Your task to perform on an android device: Go to battery settings Image 0: 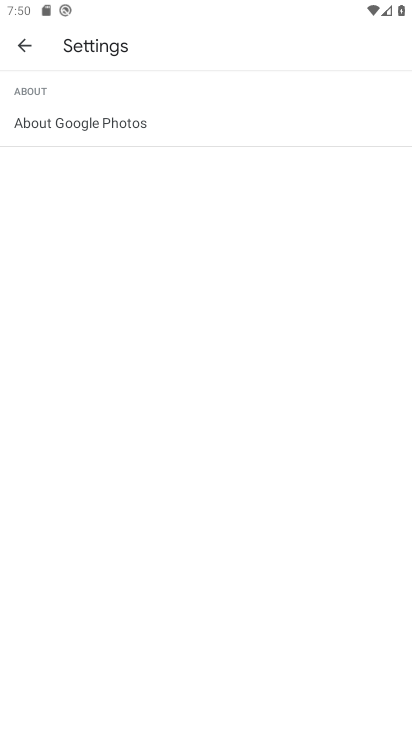
Step 0: press home button
Your task to perform on an android device: Go to battery settings Image 1: 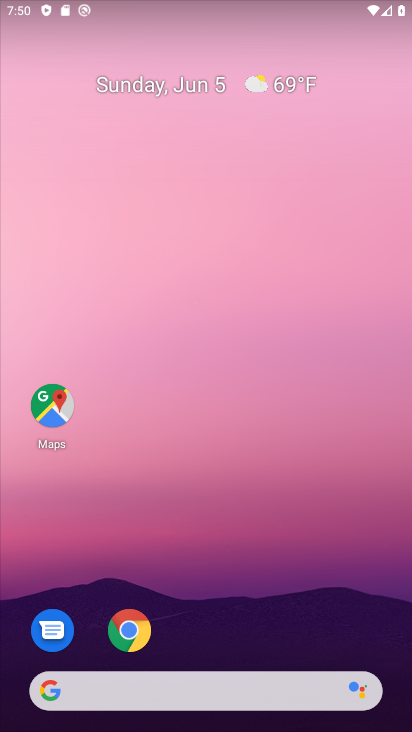
Step 1: drag from (208, 573) to (171, 188)
Your task to perform on an android device: Go to battery settings Image 2: 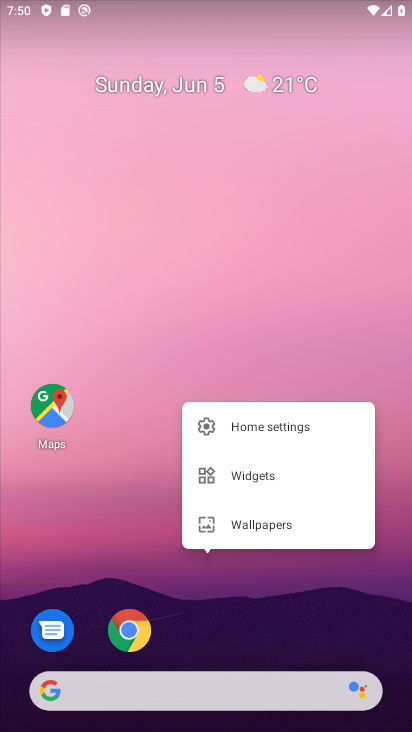
Step 2: drag from (216, 654) to (167, 153)
Your task to perform on an android device: Go to battery settings Image 3: 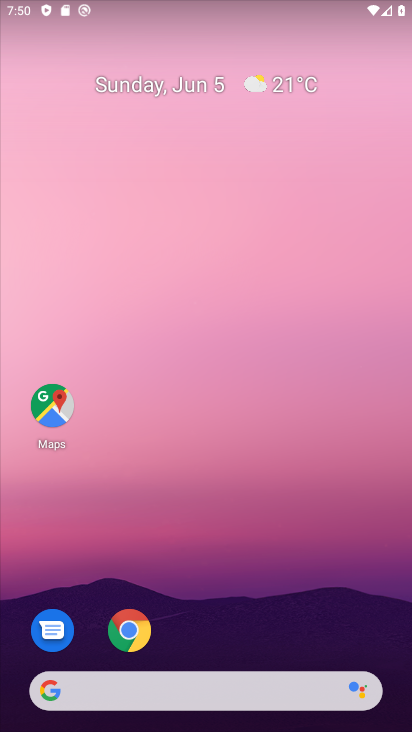
Step 3: click (237, 187)
Your task to perform on an android device: Go to battery settings Image 4: 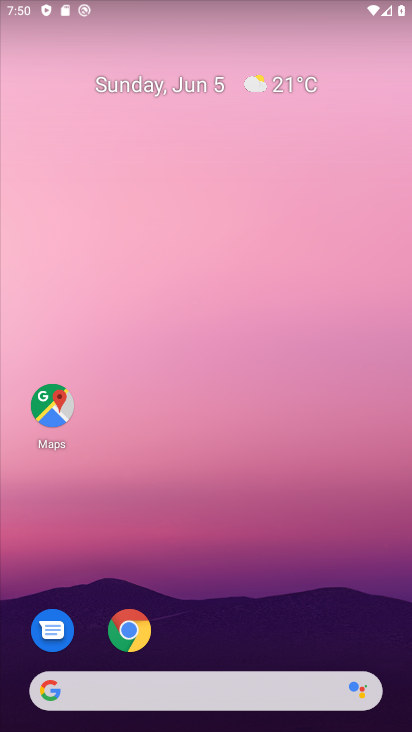
Step 4: drag from (225, 610) to (220, 80)
Your task to perform on an android device: Go to battery settings Image 5: 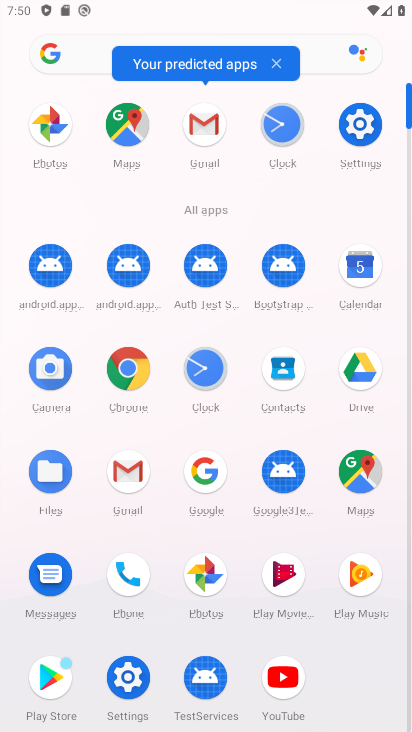
Step 5: click (359, 129)
Your task to perform on an android device: Go to battery settings Image 6: 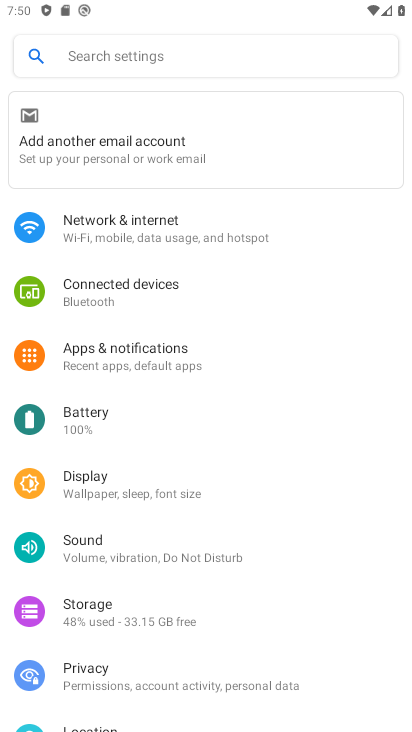
Step 6: click (128, 419)
Your task to perform on an android device: Go to battery settings Image 7: 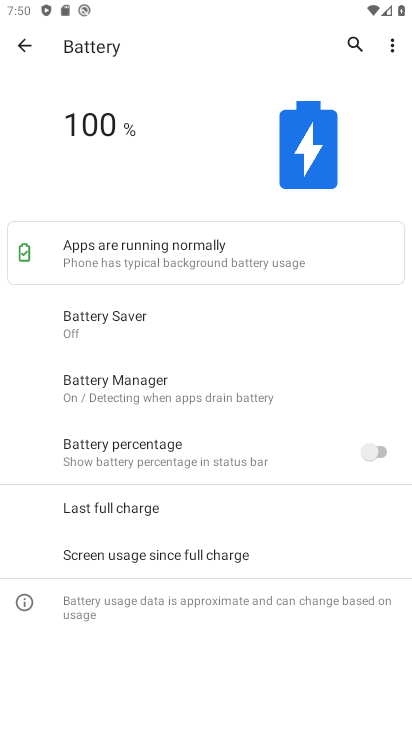
Step 7: click (46, 406)
Your task to perform on an android device: Go to battery settings Image 8: 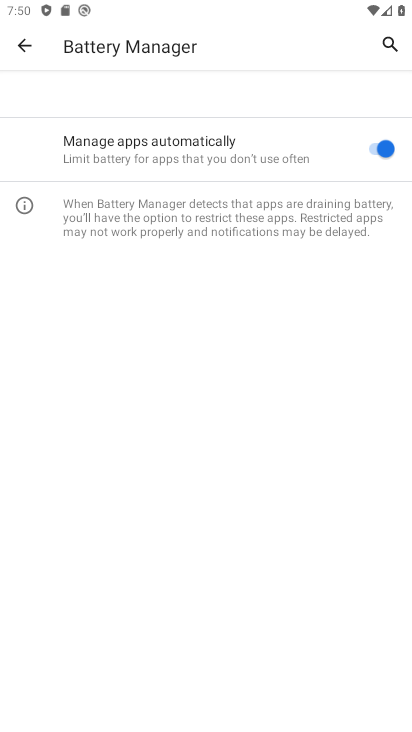
Step 8: task complete